Your task to perform on an android device: check battery use Image 0: 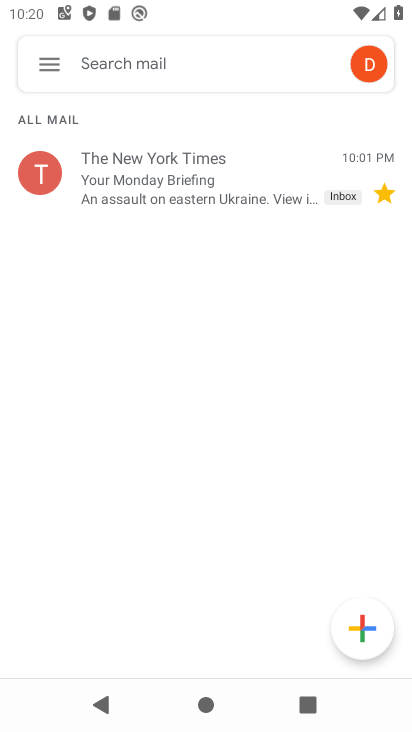
Step 0: press home button
Your task to perform on an android device: check battery use Image 1: 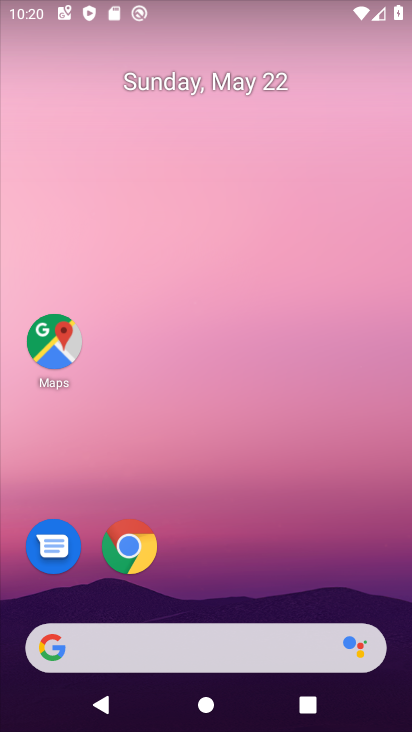
Step 1: drag from (199, 539) to (221, 87)
Your task to perform on an android device: check battery use Image 2: 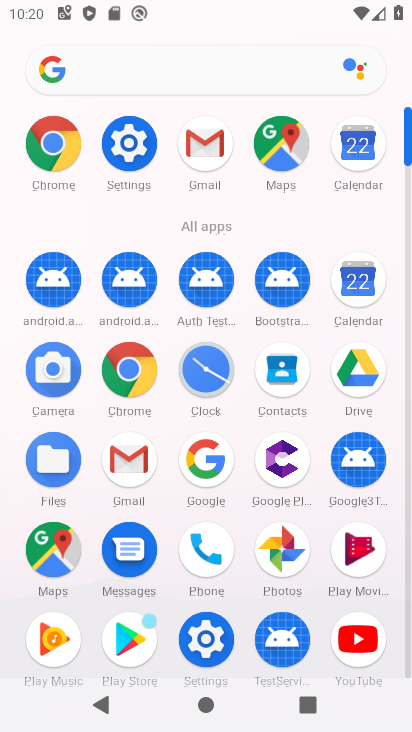
Step 2: click (129, 161)
Your task to perform on an android device: check battery use Image 3: 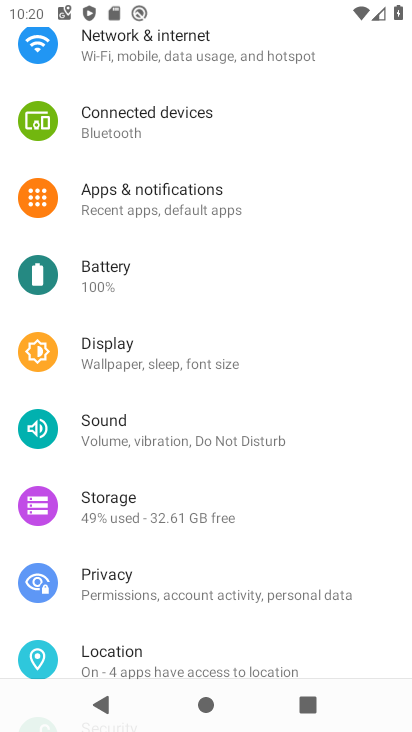
Step 3: click (116, 280)
Your task to perform on an android device: check battery use Image 4: 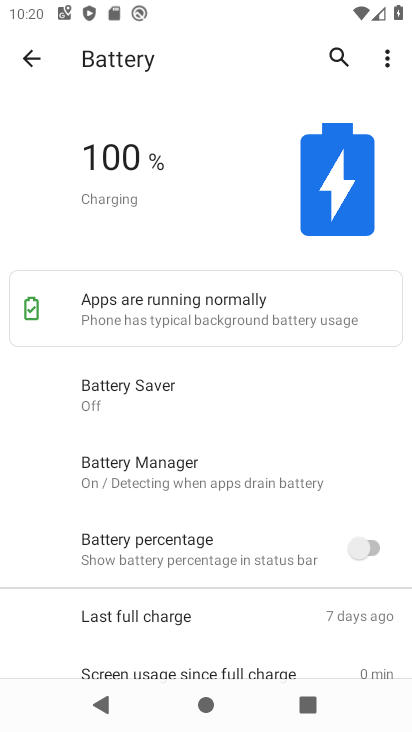
Step 4: drag from (186, 528) to (186, 364)
Your task to perform on an android device: check battery use Image 5: 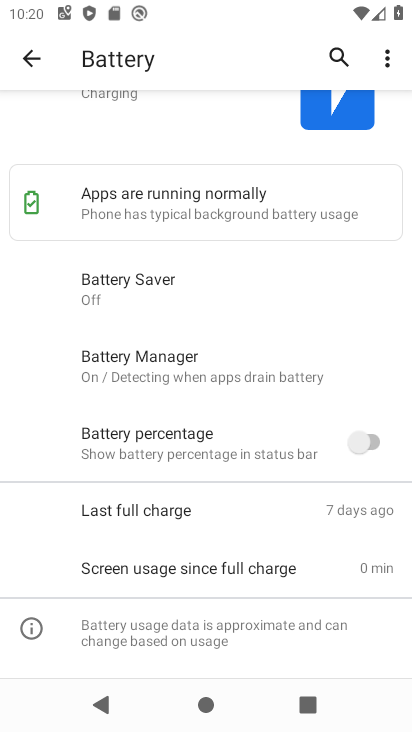
Step 5: click (382, 57)
Your task to perform on an android device: check battery use Image 6: 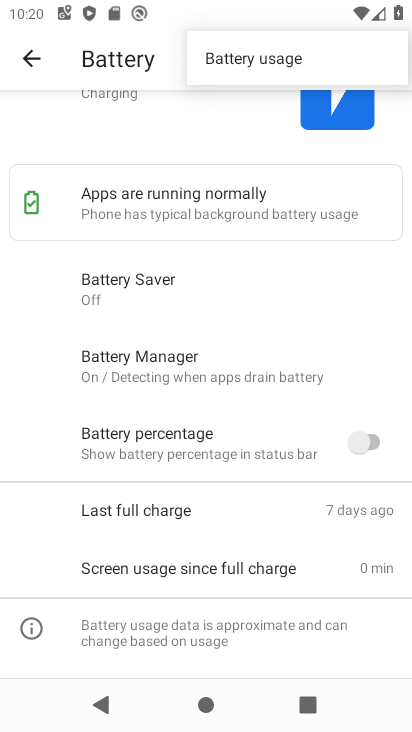
Step 6: click (268, 52)
Your task to perform on an android device: check battery use Image 7: 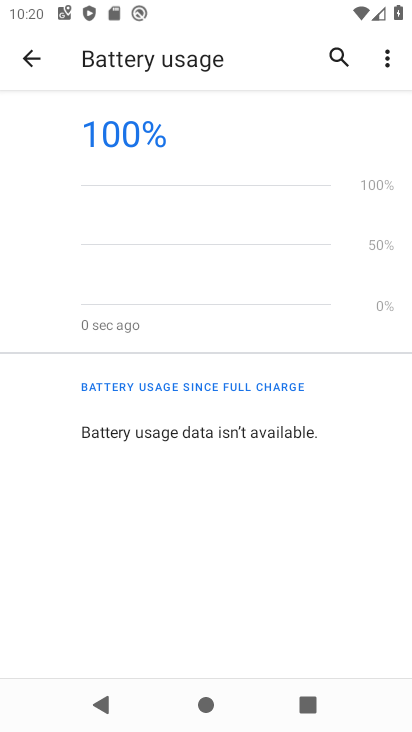
Step 7: task complete